Your task to perform on an android device: change the clock display to show seconds Image 0: 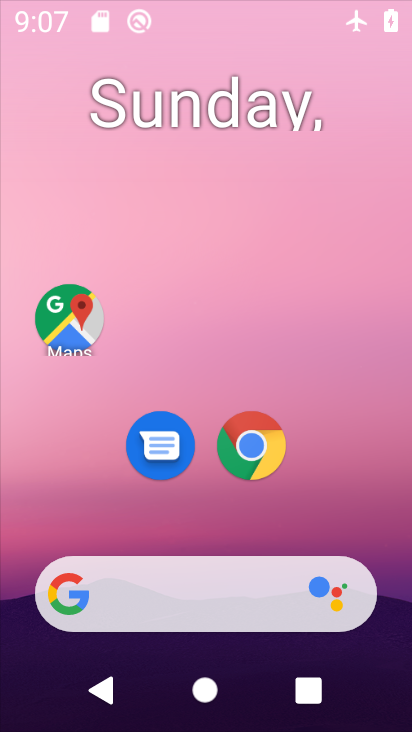
Step 0: drag from (240, 268) to (102, 34)
Your task to perform on an android device: change the clock display to show seconds Image 1: 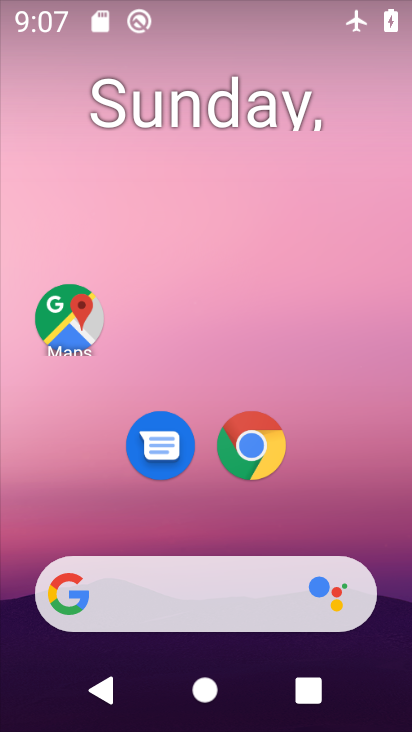
Step 1: drag from (180, 565) to (348, 233)
Your task to perform on an android device: change the clock display to show seconds Image 2: 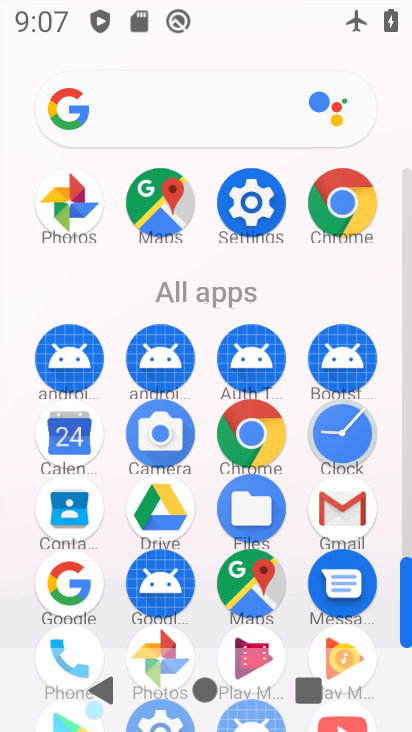
Step 2: click (335, 426)
Your task to perform on an android device: change the clock display to show seconds Image 3: 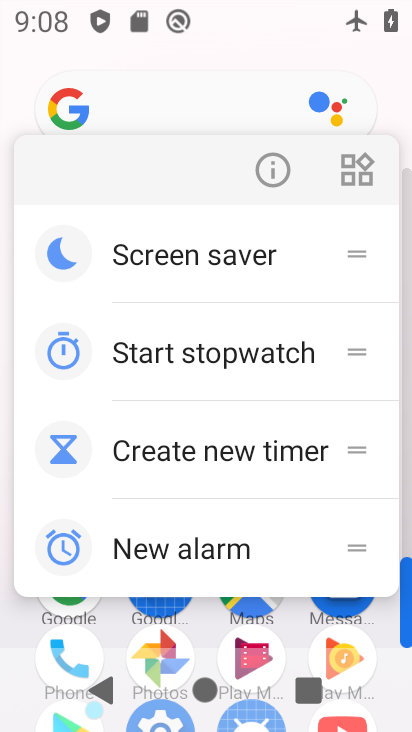
Step 3: click (224, 66)
Your task to perform on an android device: change the clock display to show seconds Image 4: 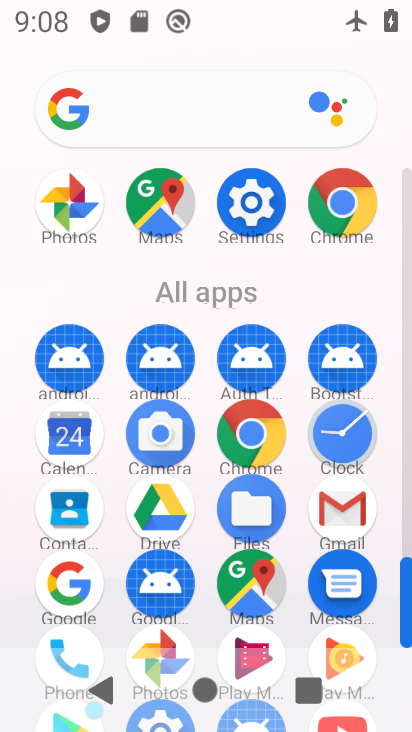
Step 4: click (341, 460)
Your task to perform on an android device: change the clock display to show seconds Image 5: 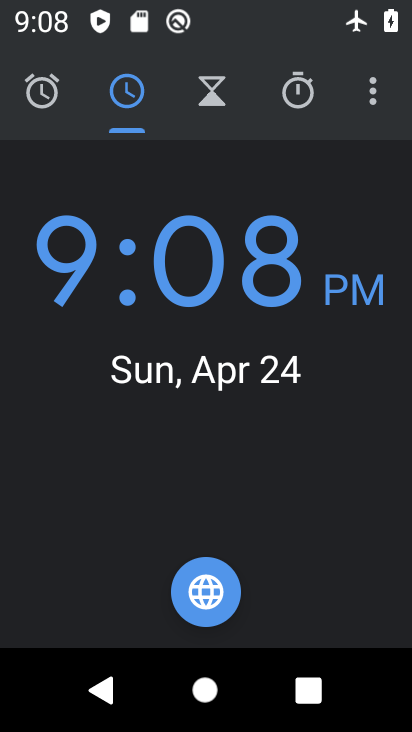
Step 5: click (374, 104)
Your task to perform on an android device: change the clock display to show seconds Image 6: 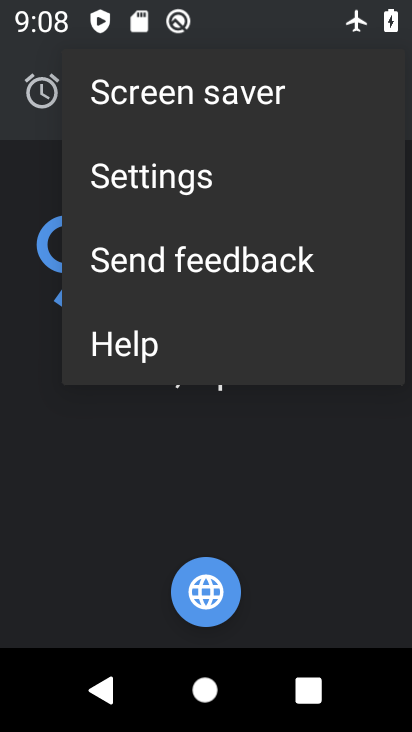
Step 6: click (158, 194)
Your task to perform on an android device: change the clock display to show seconds Image 7: 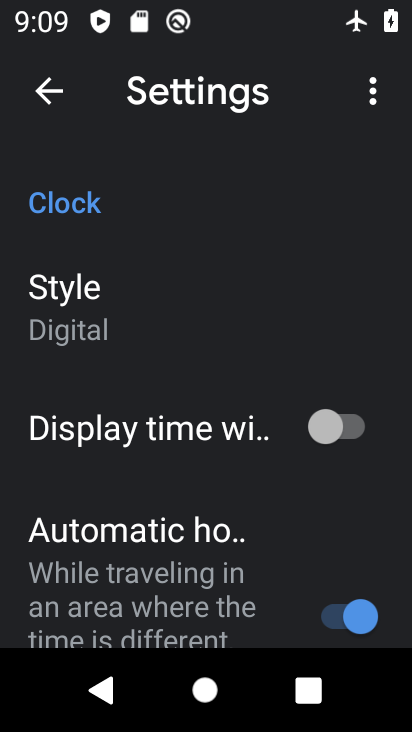
Step 7: click (337, 437)
Your task to perform on an android device: change the clock display to show seconds Image 8: 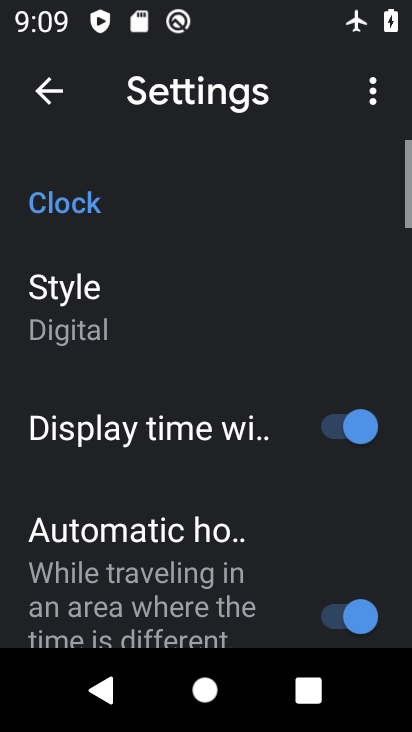
Step 8: task complete